Your task to perform on an android device: Open settings on Google Maps Image 0: 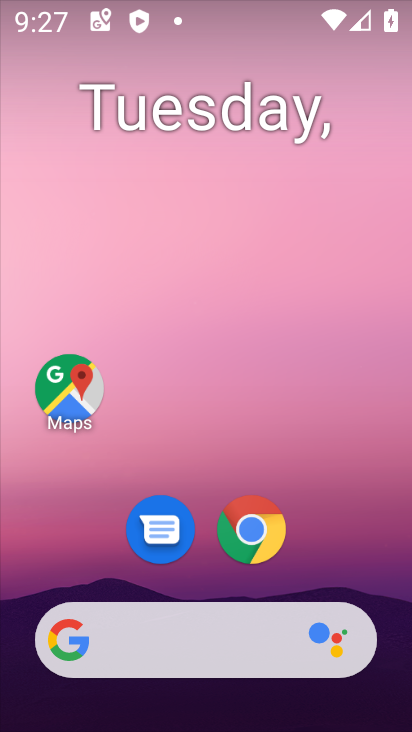
Step 0: drag from (256, 679) to (361, 180)
Your task to perform on an android device: Open settings on Google Maps Image 1: 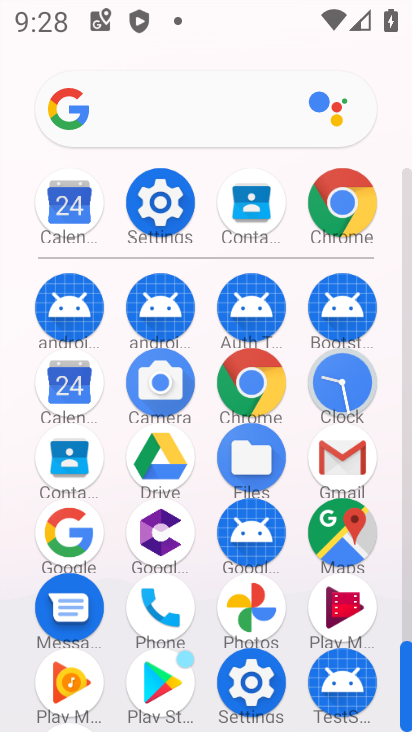
Step 1: click (354, 532)
Your task to perform on an android device: Open settings on Google Maps Image 2: 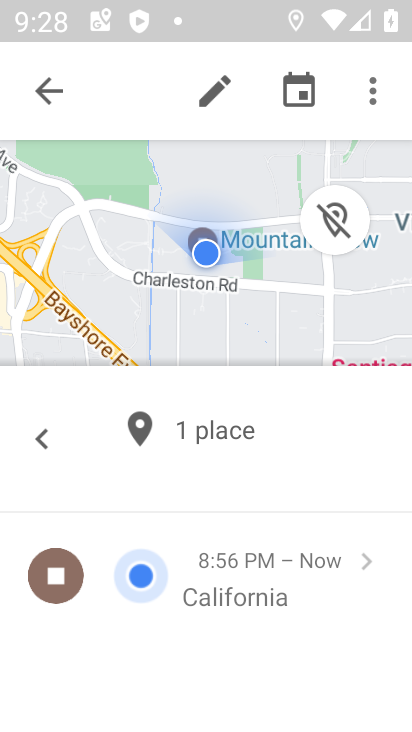
Step 2: click (34, 93)
Your task to perform on an android device: Open settings on Google Maps Image 3: 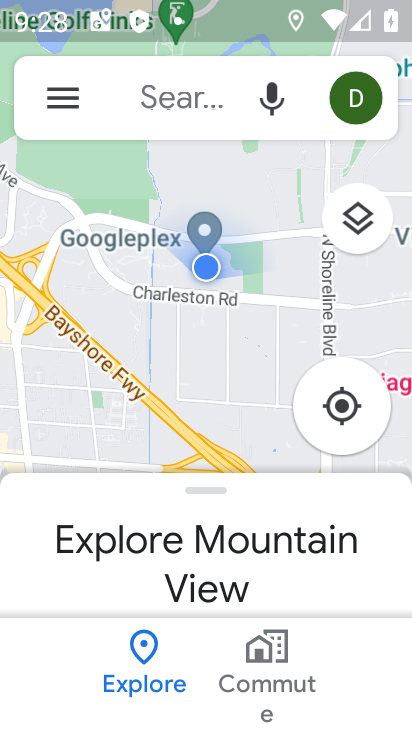
Step 3: click (64, 96)
Your task to perform on an android device: Open settings on Google Maps Image 4: 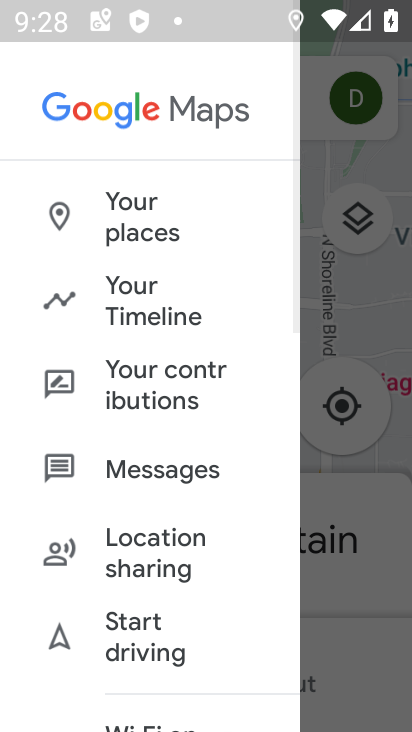
Step 4: drag from (115, 596) to (171, 24)
Your task to perform on an android device: Open settings on Google Maps Image 5: 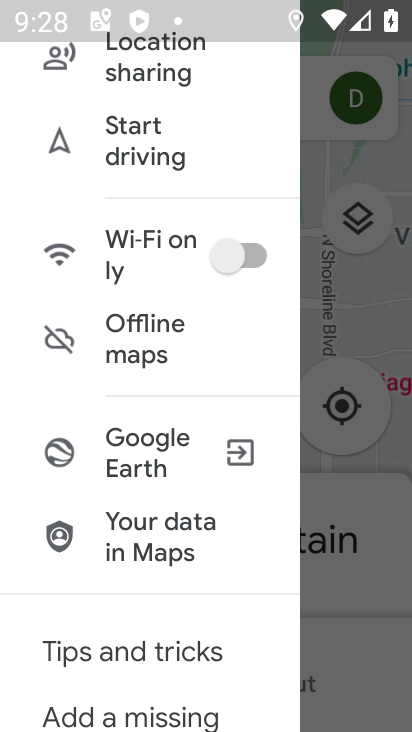
Step 5: drag from (157, 598) to (218, 111)
Your task to perform on an android device: Open settings on Google Maps Image 6: 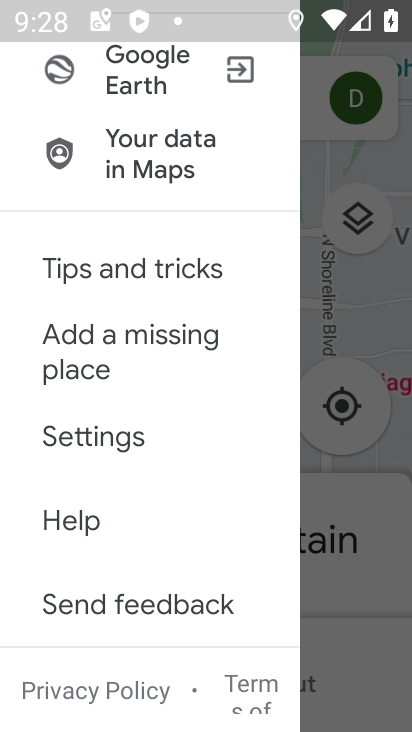
Step 6: click (138, 446)
Your task to perform on an android device: Open settings on Google Maps Image 7: 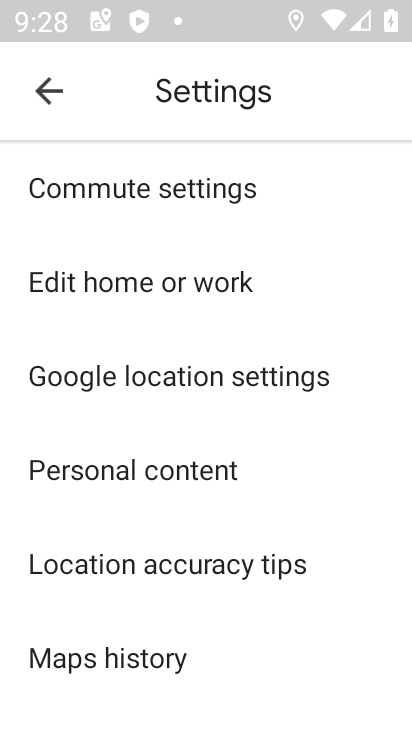
Step 7: task complete